Your task to perform on an android device: When is my next meeting? Image 0: 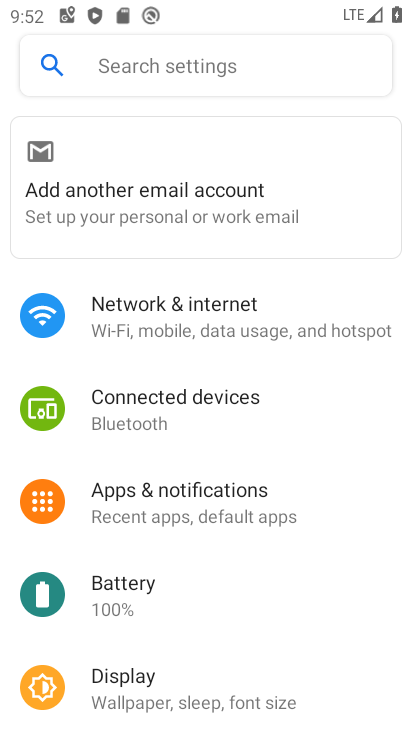
Step 0: press home button
Your task to perform on an android device: When is my next meeting? Image 1: 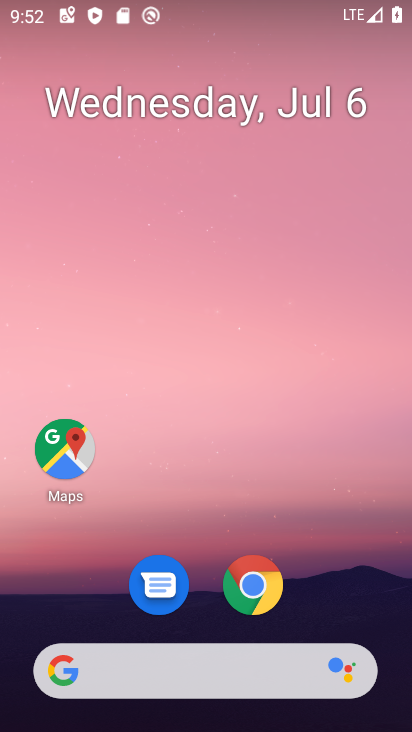
Step 1: drag from (205, 473) to (203, 14)
Your task to perform on an android device: When is my next meeting? Image 2: 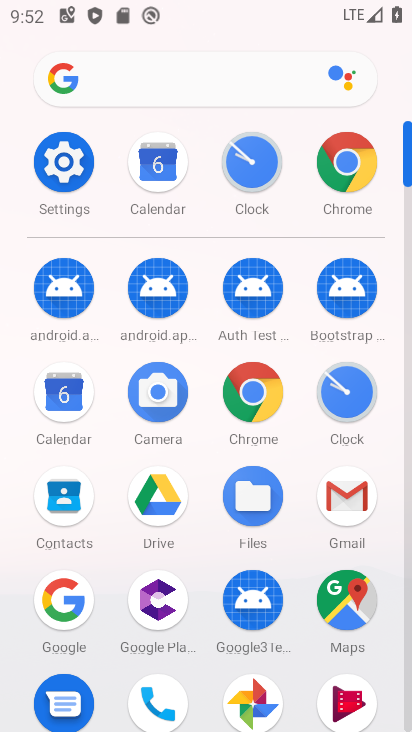
Step 2: click (55, 388)
Your task to perform on an android device: When is my next meeting? Image 3: 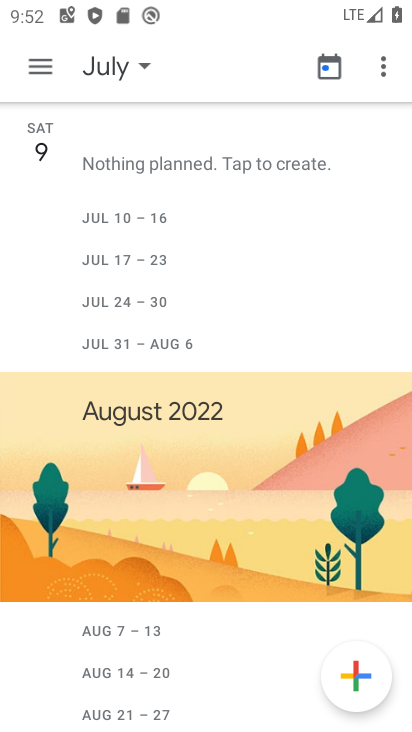
Step 3: click (36, 60)
Your task to perform on an android device: When is my next meeting? Image 4: 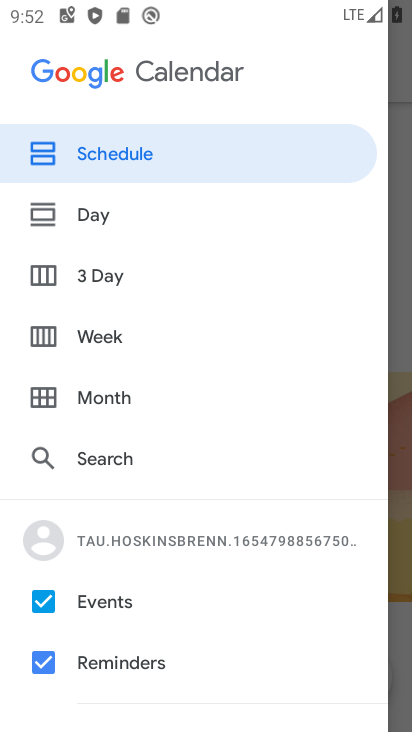
Step 4: click (54, 327)
Your task to perform on an android device: When is my next meeting? Image 5: 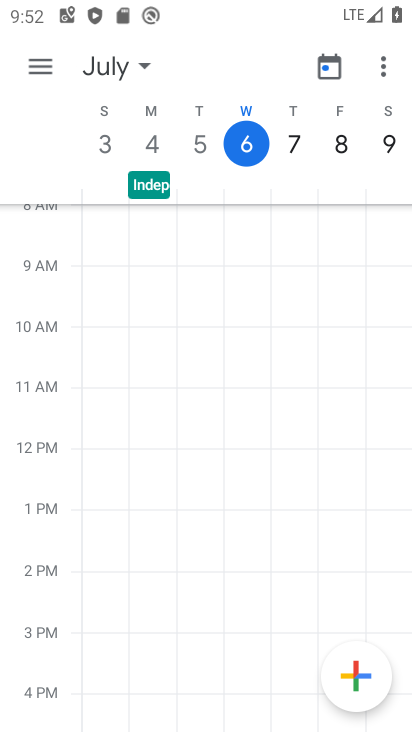
Step 5: click (255, 143)
Your task to perform on an android device: When is my next meeting? Image 6: 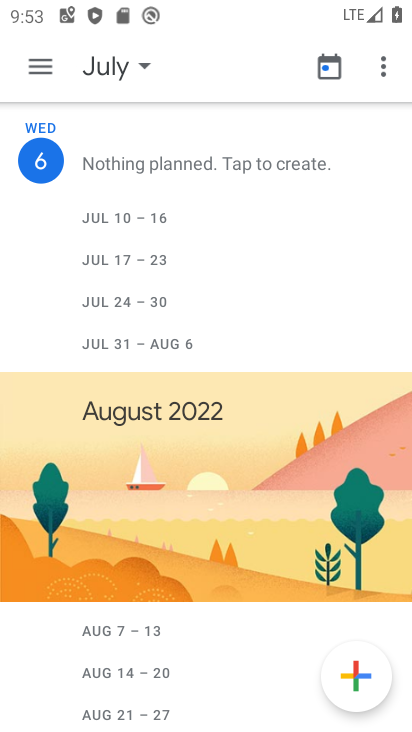
Step 6: drag from (217, 440) to (235, 166)
Your task to perform on an android device: When is my next meeting? Image 7: 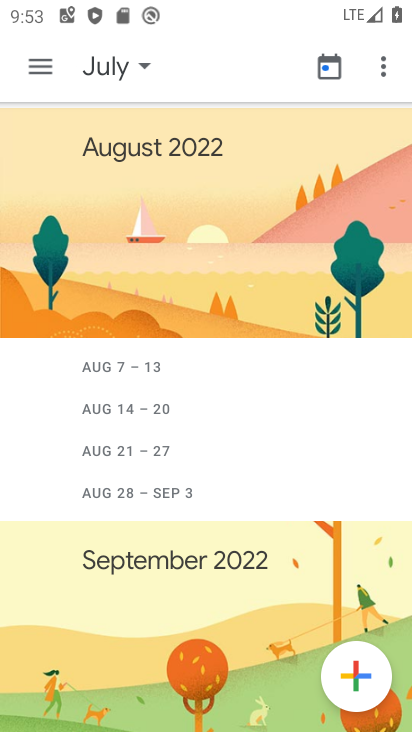
Step 7: drag from (233, 211) to (167, 627)
Your task to perform on an android device: When is my next meeting? Image 8: 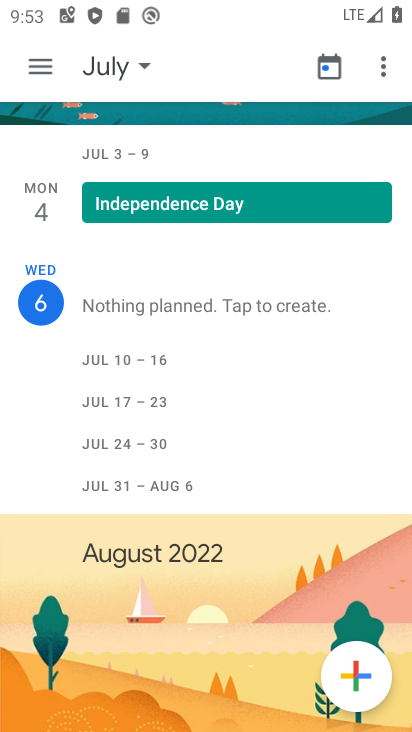
Step 8: click (37, 58)
Your task to perform on an android device: When is my next meeting? Image 9: 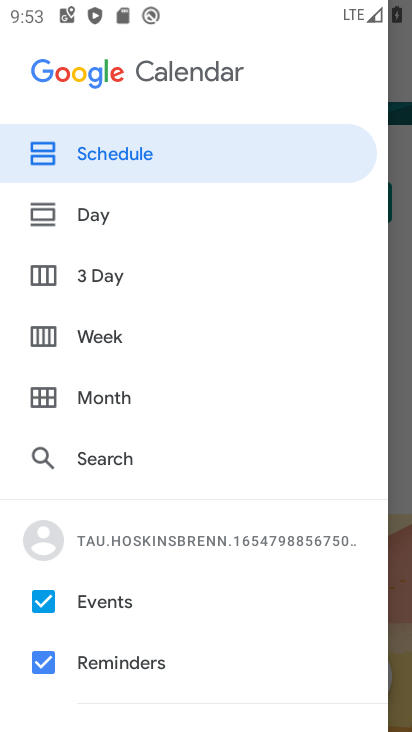
Step 9: click (114, 153)
Your task to perform on an android device: When is my next meeting? Image 10: 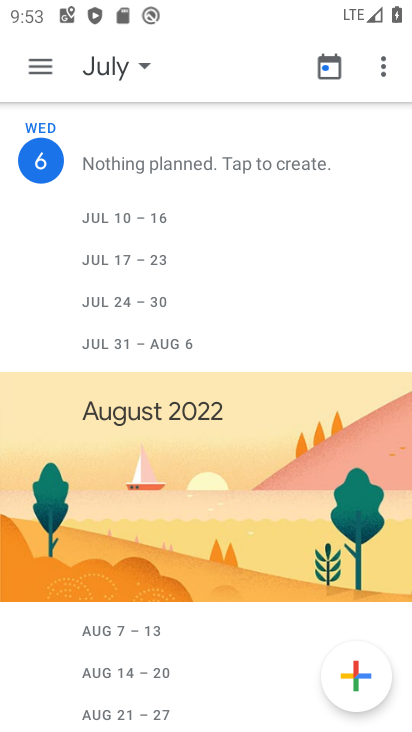
Step 10: task complete